Your task to perform on an android device: Open the phone app and click the voicemail tab. Image 0: 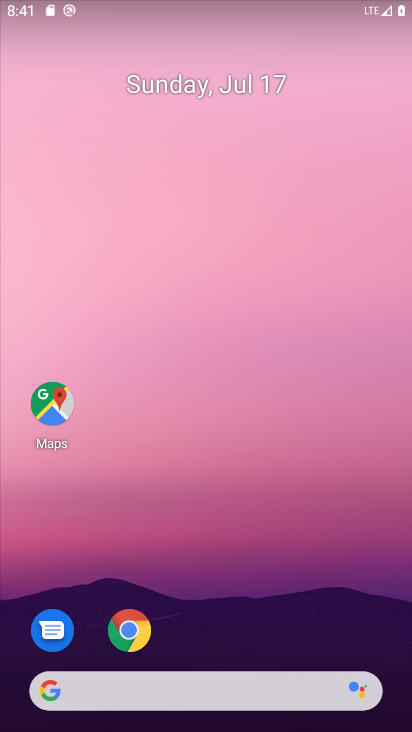
Step 0: drag from (223, 527) to (129, 12)
Your task to perform on an android device: Open the phone app and click the voicemail tab. Image 1: 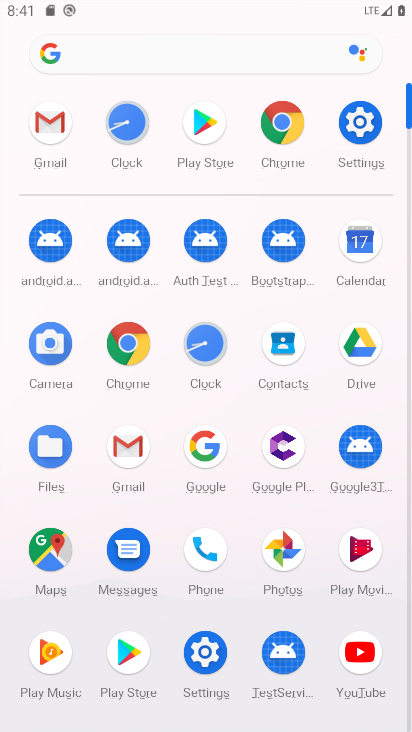
Step 1: click (194, 565)
Your task to perform on an android device: Open the phone app and click the voicemail tab. Image 2: 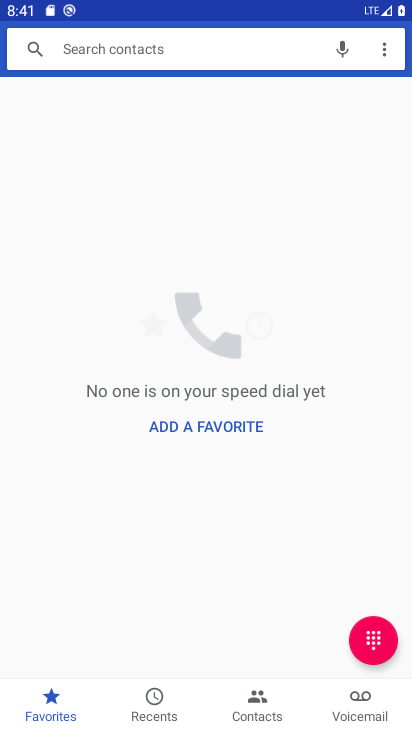
Step 2: click (365, 699)
Your task to perform on an android device: Open the phone app and click the voicemail tab. Image 3: 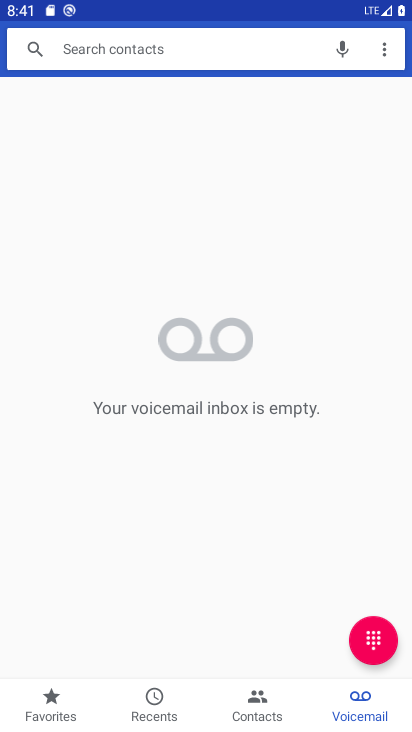
Step 3: task complete